Your task to perform on an android device: turn notification dots on Image 0: 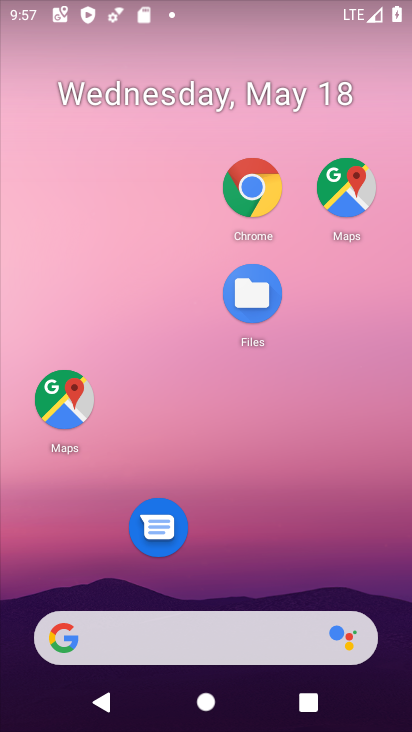
Step 0: drag from (263, 501) to (261, 206)
Your task to perform on an android device: turn notification dots on Image 1: 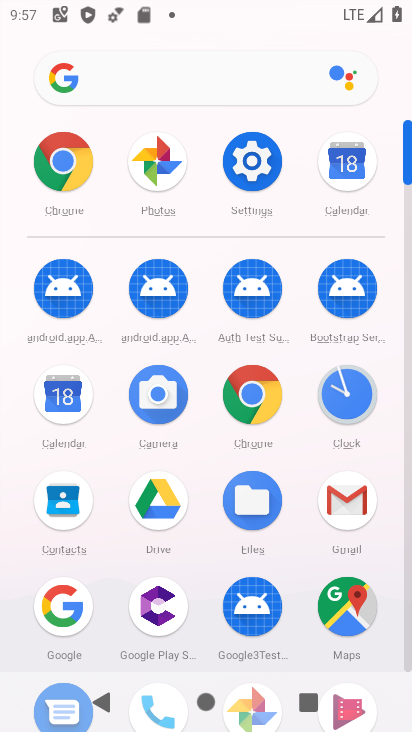
Step 1: click (258, 180)
Your task to perform on an android device: turn notification dots on Image 2: 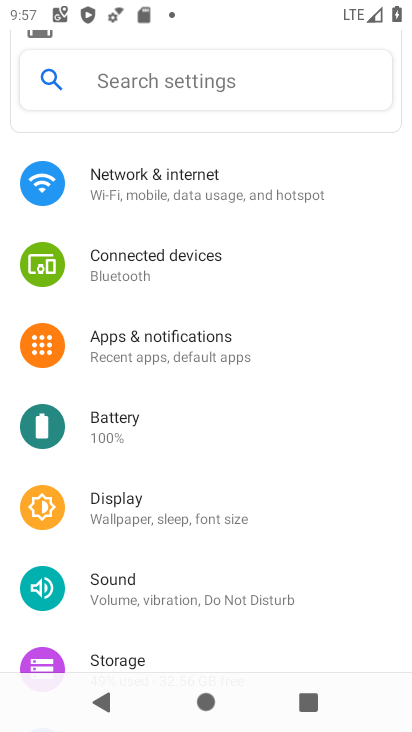
Step 2: click (171, 342)
Your task to perform on an android device: turn notification dots on Image 3: 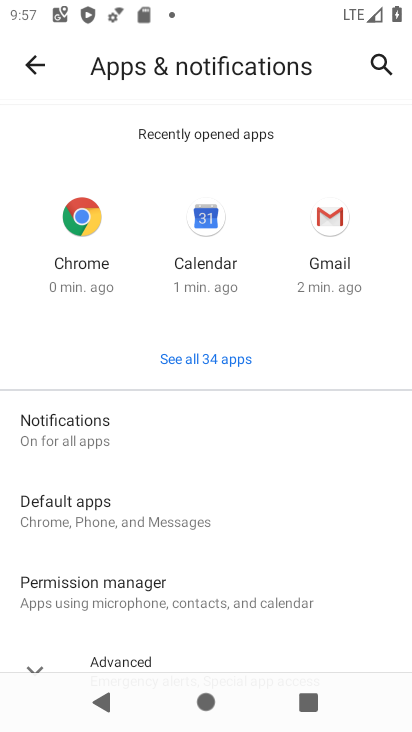
Step 3: click (128, 639)
Your task to perform on an android device: turn notification dots on Image 4: 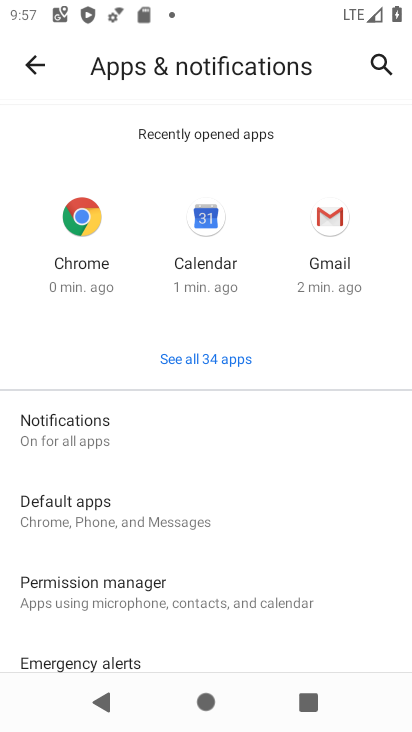
Step 4: click (150, 434)
Your task to perform on an android device: turn notification dots on Image 5: 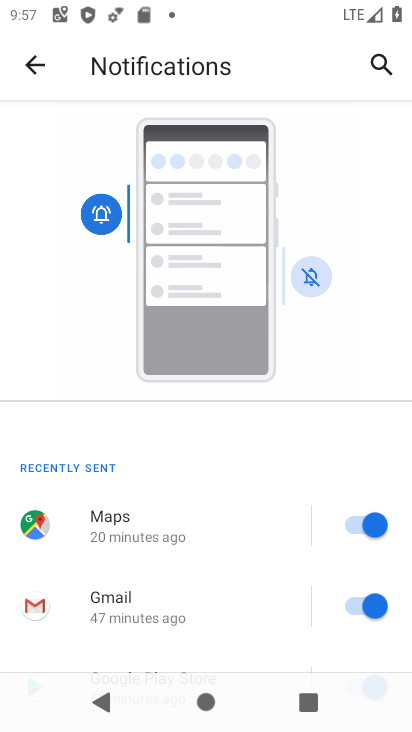
Step 5: drag from (263, 612) to (232, 379)
Your task to perform on an android device: turn notification dots on Image 6: 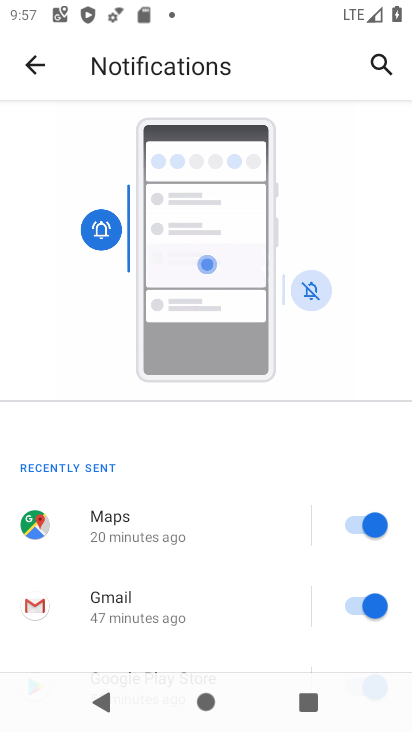
Step 6: drag from (291, 579) to (296, 401)
Your task to perform on an android device: turn notification dots on Image 7: 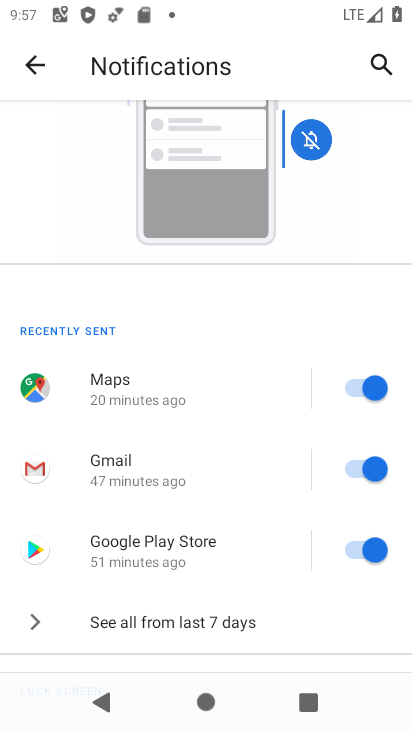
Step 7: press back button
Your task to perform on an android device: turn notification dots on Image 8: 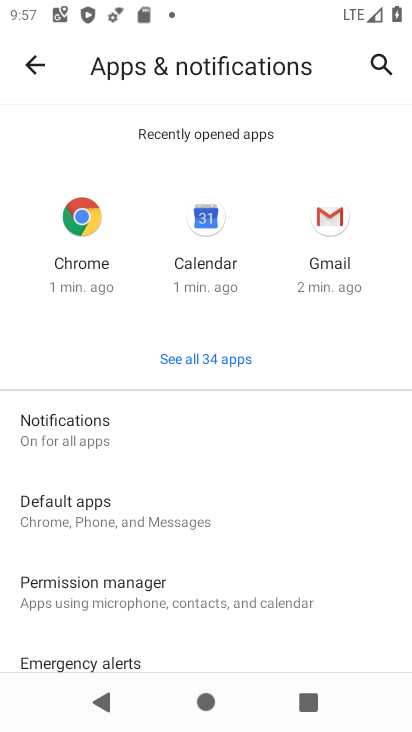
Step 8: drag from (259, 538) to (218, 217)
Your task to perform on an android device: turn notification dots on Image 9: 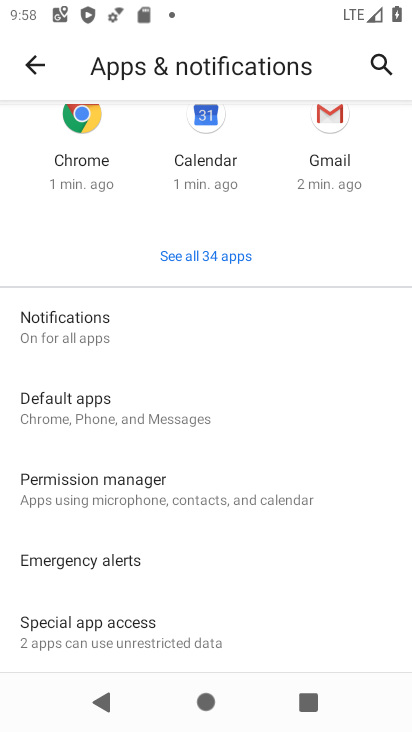
Step 9: press back button
Your task to perform on an android device: turn notification dots on Image 10: 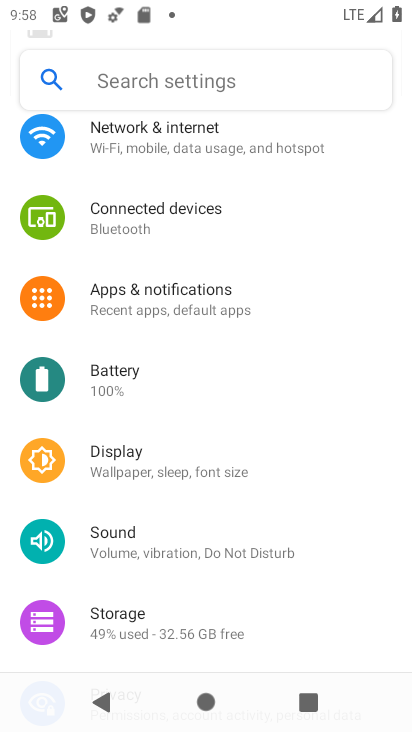
Step 10: press back button
Your task to perform on an android device: turn notification dots on Image 11: 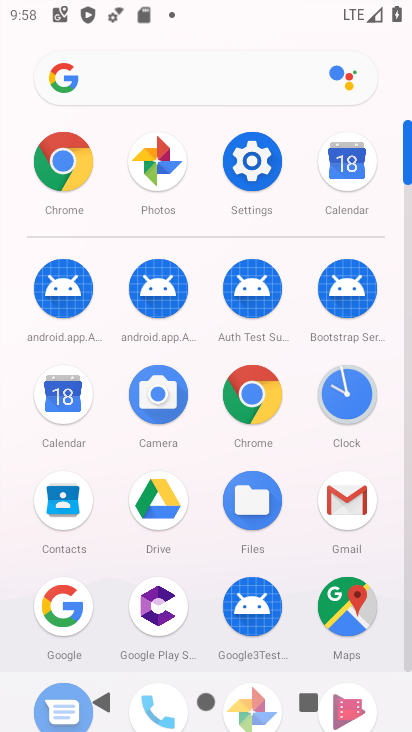
Step 11: click (261, 178)
Your task to perform on an android device: turn notification dots on Image 12: 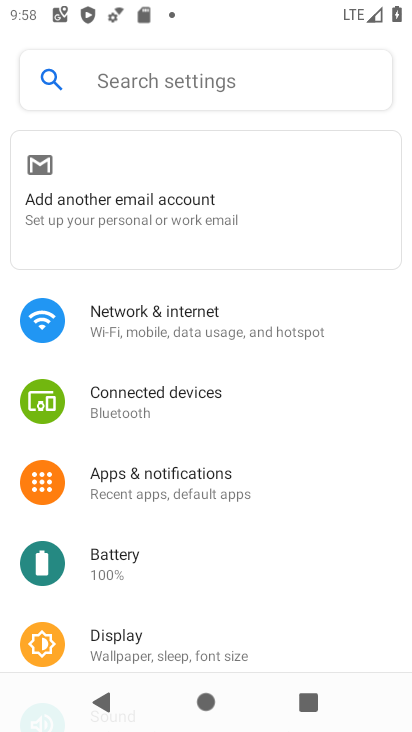
Step 12: drag from (322, 610) to (290, 476)
Your task to perform on an android device: turn notification dots on Image 13: 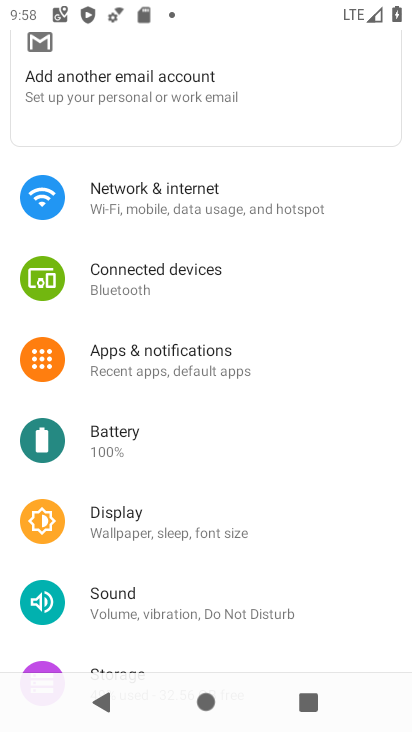
Step 13: drag from (291, 571) to (279, 239)
Your task to perform on an android device: turn notification dots on Image 14: 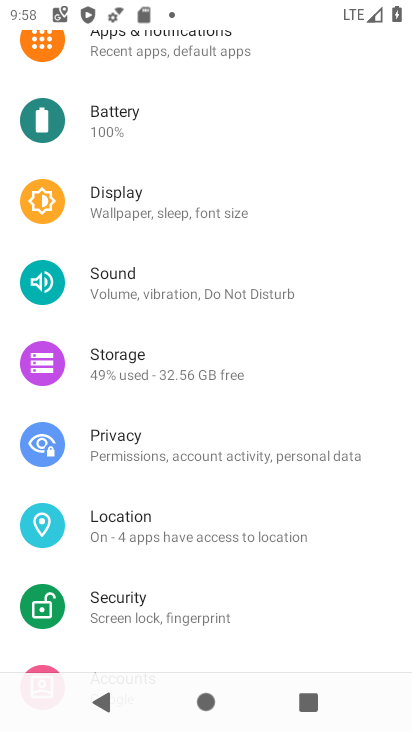
Step 14: drag from (287, 502) to (249, 172)
Your task to perform on an android device: turn notification dots on Image 15: 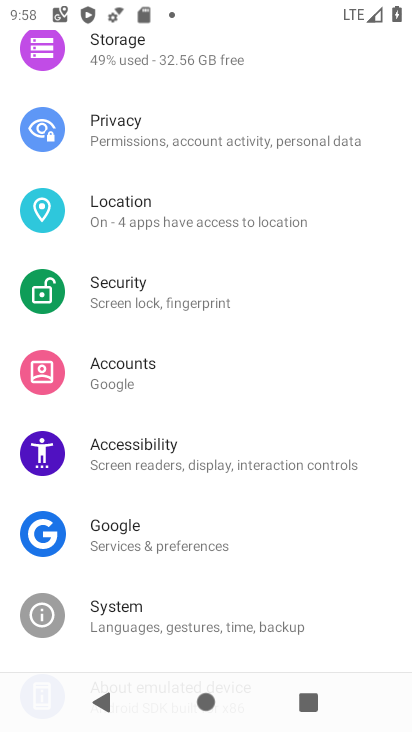
Step 15: drag from (256, 464) to (251, 206)
Your task to perform on an android device: turn notification dots on Image 16: 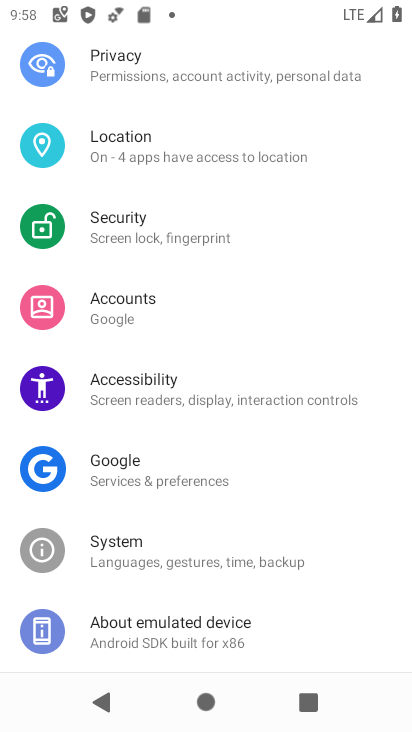
Step 16: drag from (288, 232) to (294, 529)
Your task to perform on an android device: turn notification dots on Image 17: 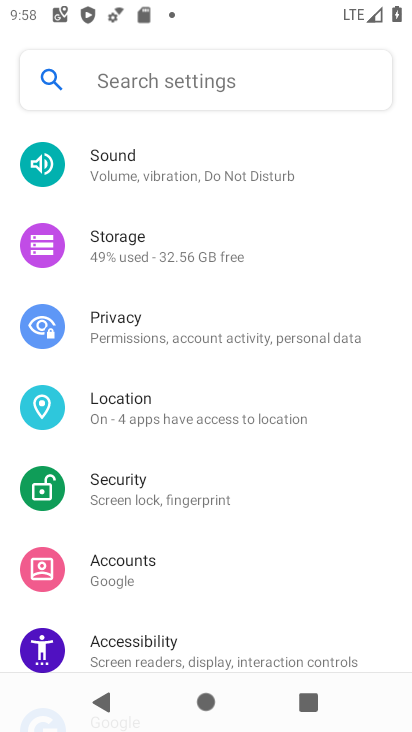
Step 17: drag from (273, 262) to (277, 472)
Your task to perform on an android device: turn notification dots on Image 18: 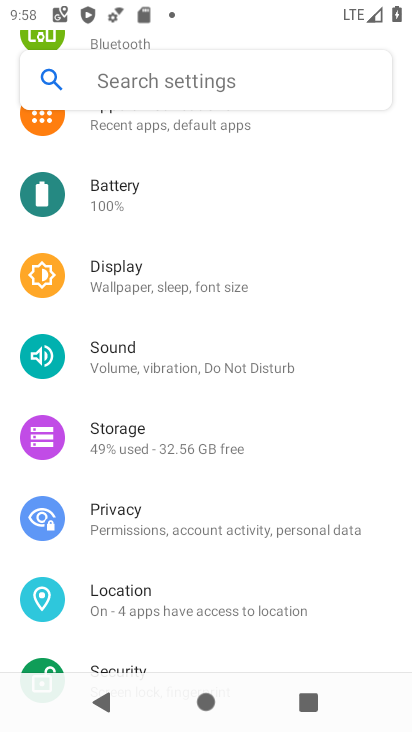
Step 18: drag from (314, 202) to (296, 325)
Your task to perform on an android device: turn notification dots on Image 19: 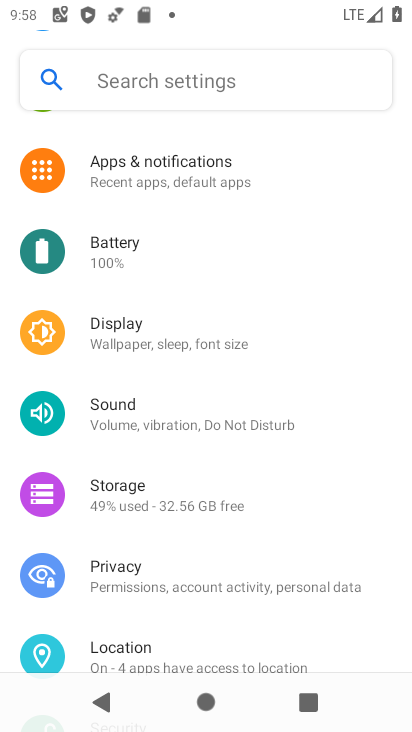
Step 19: click (208, 429)
Your task to perform on an android device: turn notification dots on Image 20: 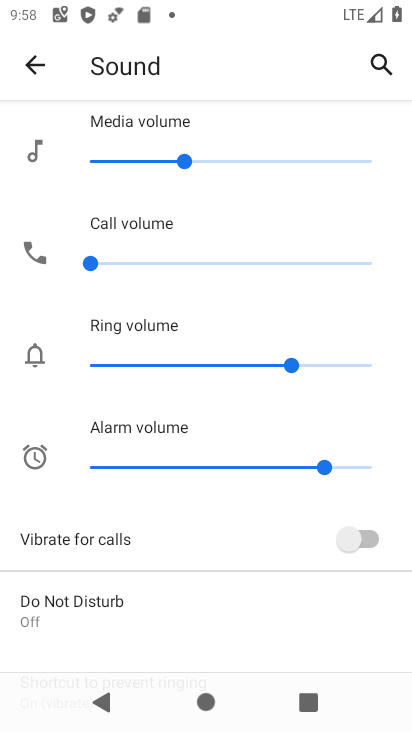
Step 20: drag from (138, 626) to (141, 259)
Your task to perform on an android device: turn notification dots on Image 21: 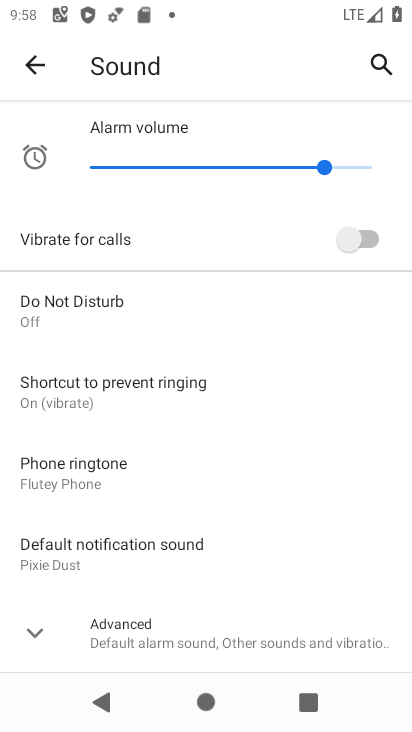
Step 21: click (121, 630)
Your task to perform on an android device: turn notification dots on Image 22: 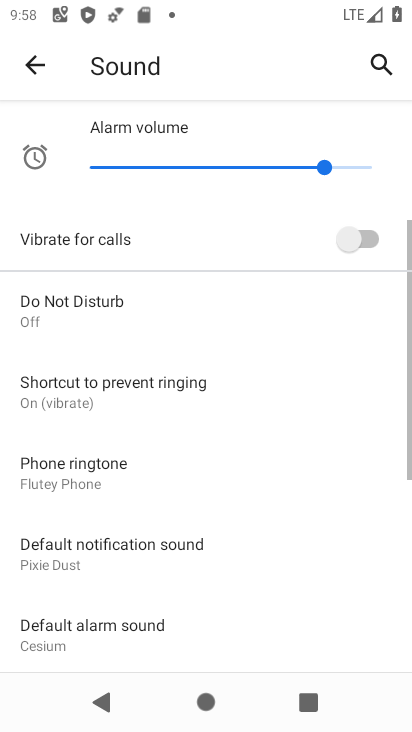
Step 22: task complete